Your task to perform on an android device: turn notification dots off Image 0: 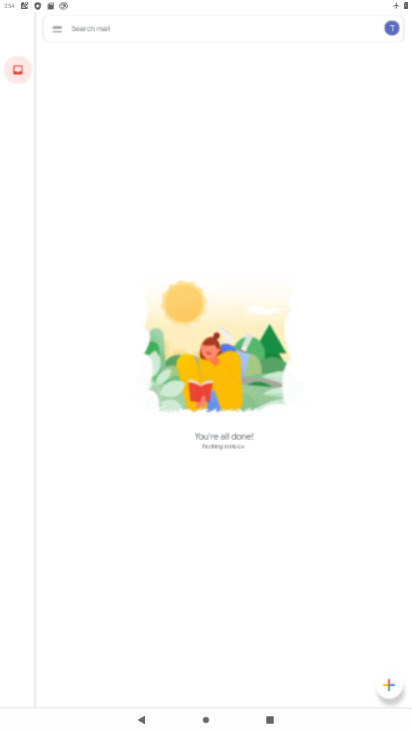
Step 0: drag from (389, 716) to (242, 15)
Your task to perform on an android device: turn notification dots off Image 1: 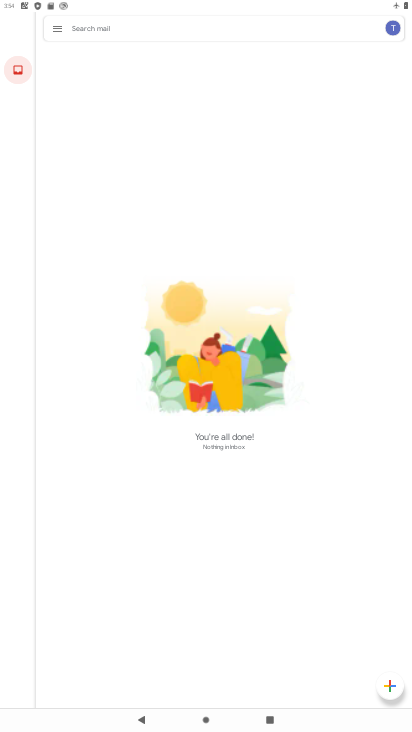
Step 1: press home button
Your task to perform on an android device: turn notification dots off Image 2: 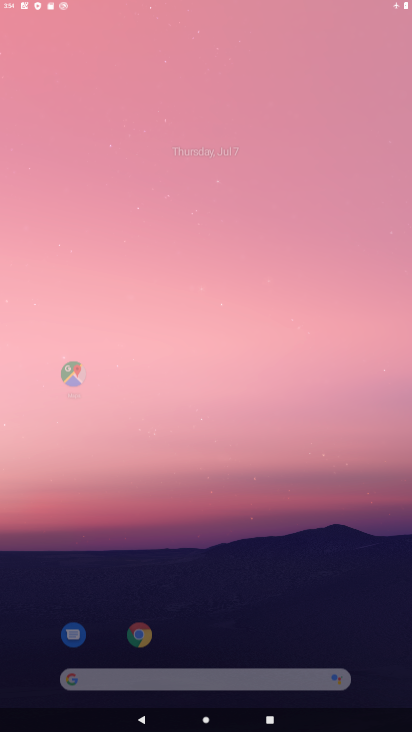
Step 2: drag from (361, 621) to (147, 5)
Your task to perform on an android device: turn notification dots off Image 3: 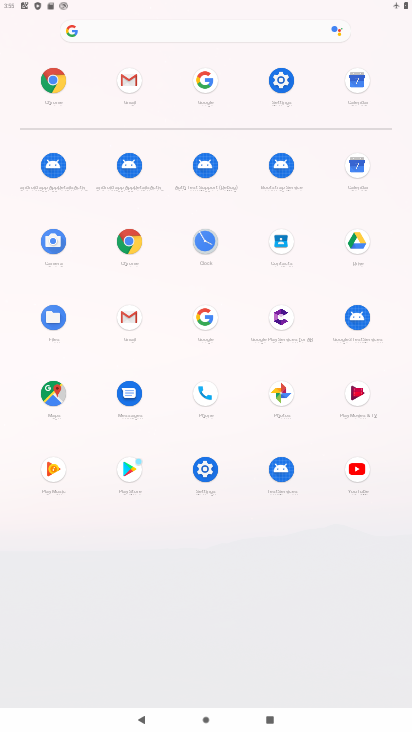
Step 3: click (277, 87)
Your task to perform on an android device: turn notification dots off Image 4: 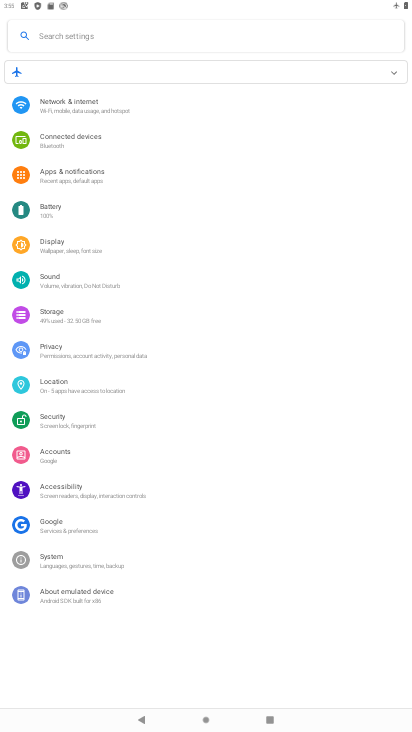
Step 4: click (71, 187)
Your task to perform on an android device: turn notification dots off Image 5: 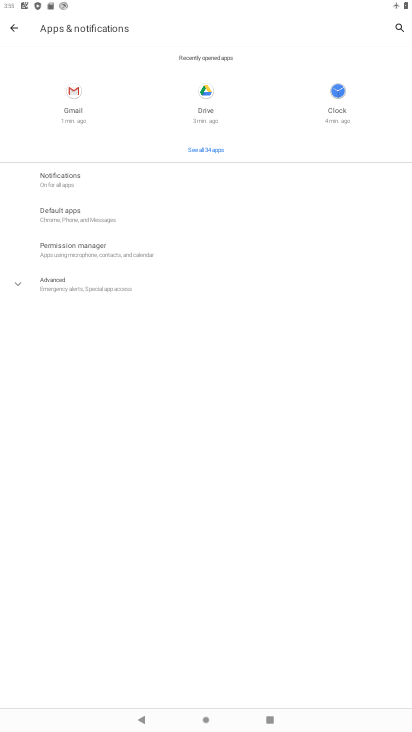
Step 5: click (125, 173)
Your task to perform on an android device: turn notification dots off Image 6: 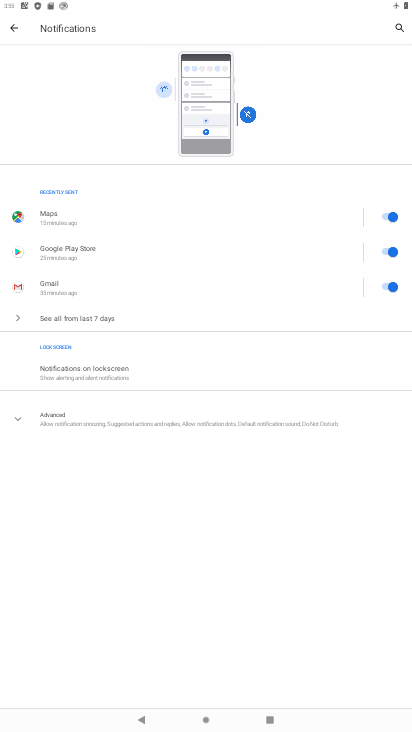
Step 6: click (44, 415)
Your task to perform on an android device: turn notification dots off Image 7: 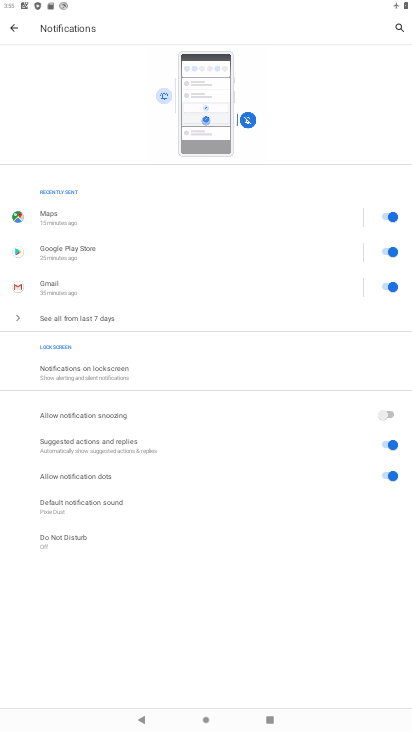
Step 7: click (396, 447)
Your task to perform on an android device: turn notification dots off Image 8: 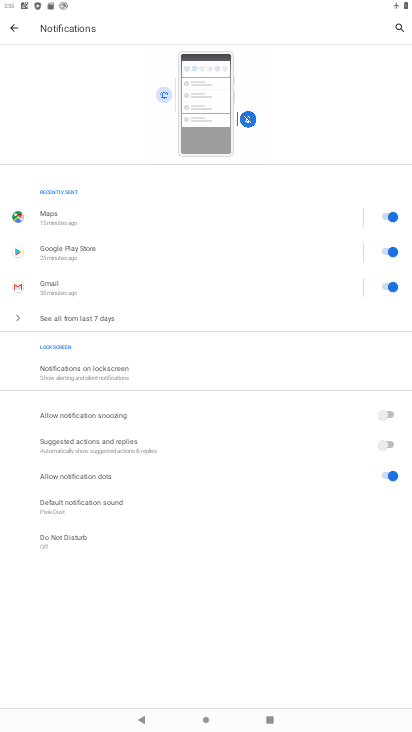
Step 8: click (392, 447)
Your task to perform on an android device: turn notification dots off Image 9: 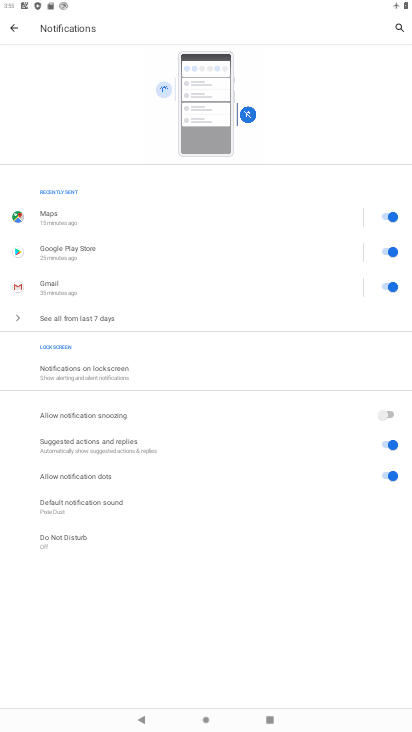
Step 9: click (390, 481)
Your task to perform on an android device: turn notification dots off Image 10: 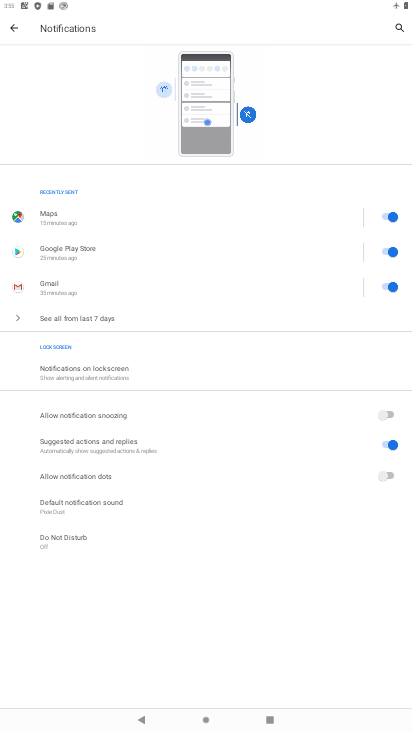
Step 10: task complete